Your task to perform on an android device: Open calendar and show me the second week of next month Image 0: 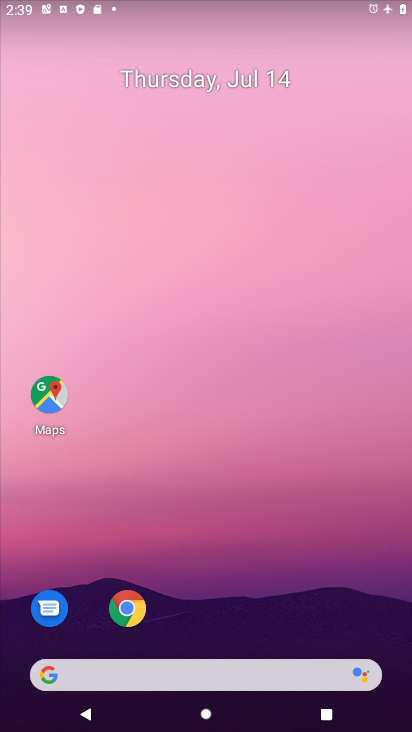
Step 0: drag from (381, 621) to (327, 114)
Your task to perform on an android device: Open calendar and show me the second week of next month Image 1: 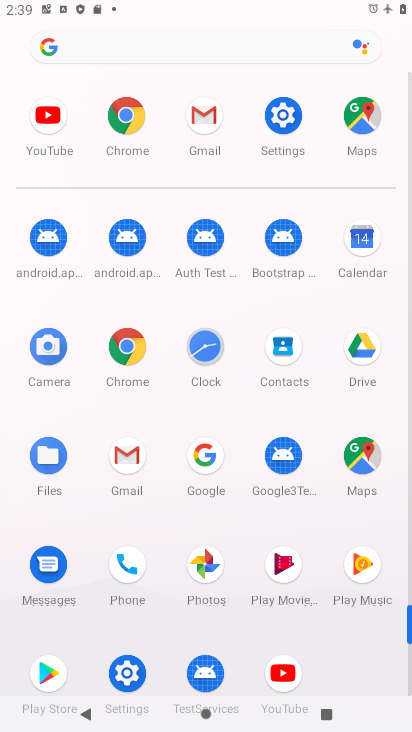
Step 1: click (362, 241)
Your task to perform on an android device: Open calendar and show me the second week of next month Image 2: 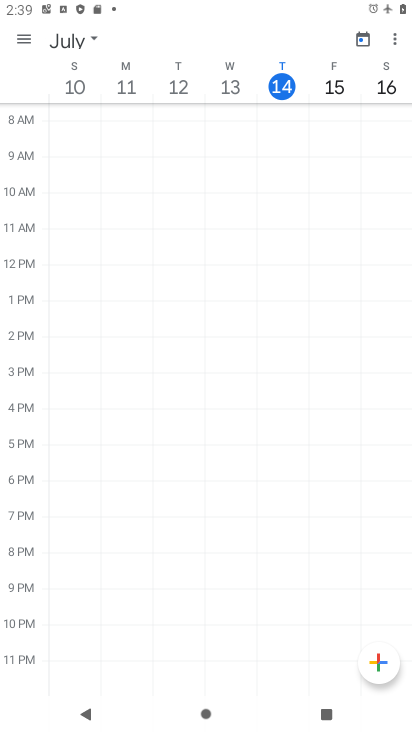
Step 2: click (91, 39)
Your task to perform on an android device: Open calendar and show me the second week of next month Image 3: 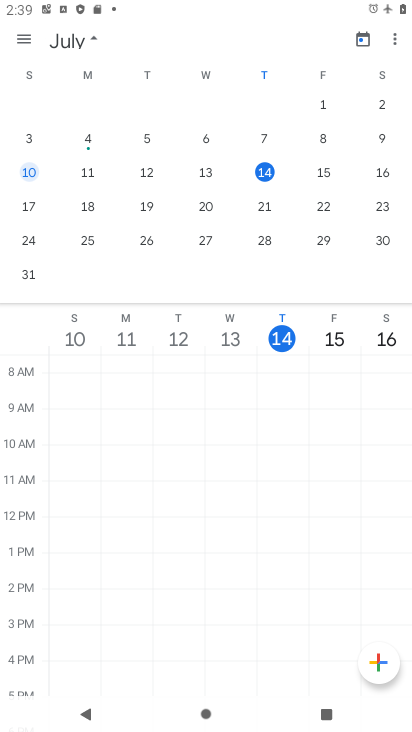
Step 3: drag from (385, 236) to (4, 187)
Your task to perform on an android device: Open calendar and show me the second week of next month Image 4: 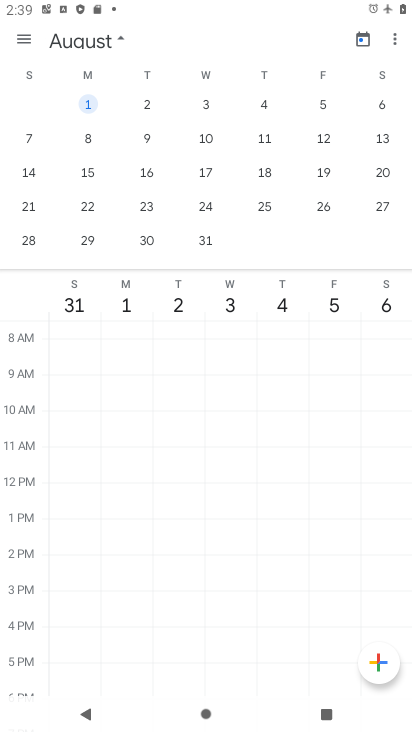
Step 4: click (25, 170)
Your task to perform on an android device: Open calendar and show me the second week of next month Image 5: 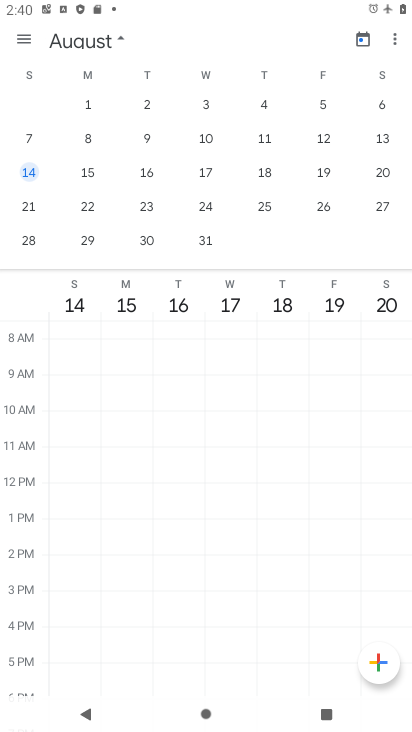
Step 5: task complete